Your task to perform on an android device: Open the calendar and show me this week's events Image 0: 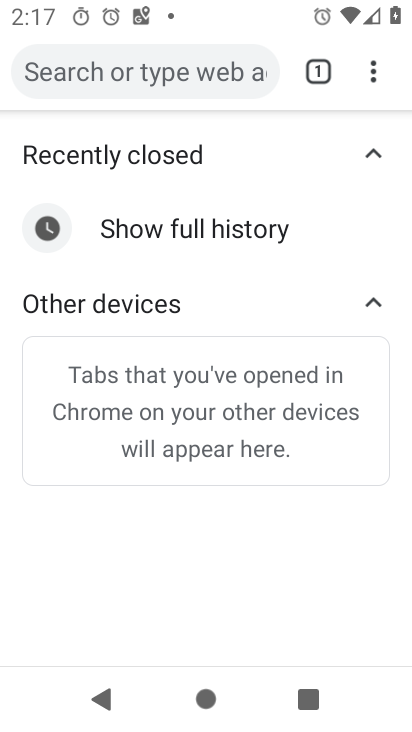
Step 0: press home button
Your task to perform on an android device: Open the calendar and show me this week's events Image 1: 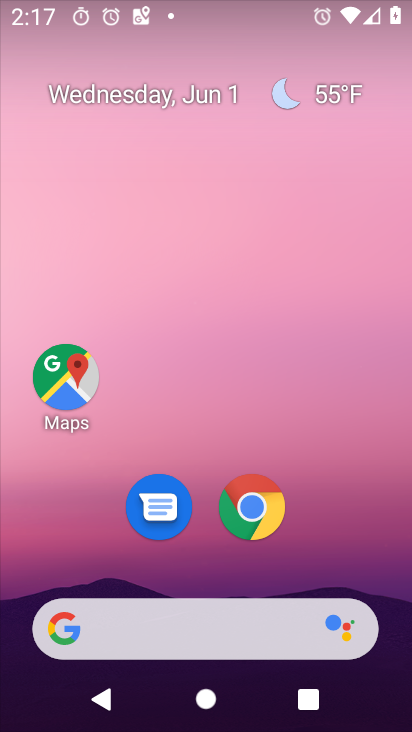
Step 1: drag from (358, 581) to (316, 0)
Your task to perform on an android device: Open the calendar and show me this week's events Image 2: 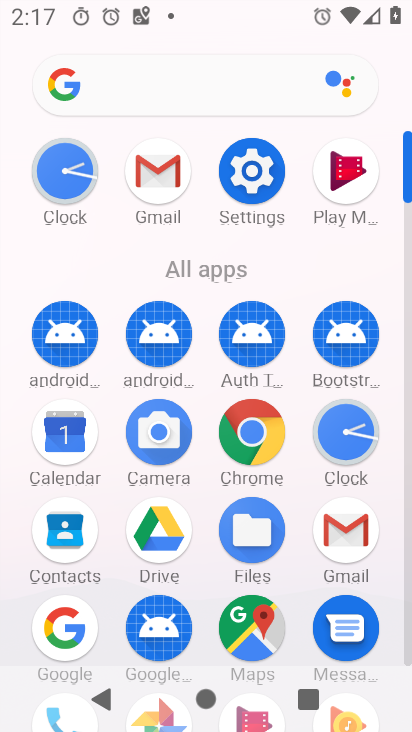
Step 2: click (56, 441)
Your task to perform on an android device: Open the calendar and show me this week's events Image 3: 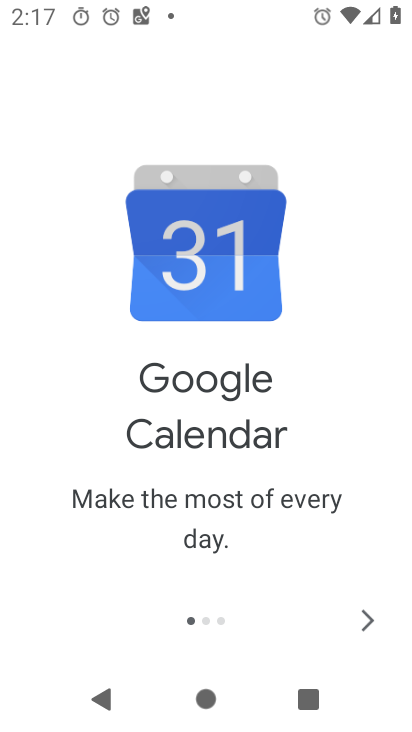
Step 3: click (361, 630)
Your task to perform on an android device: Open the calendar and show me this week's events Image 4: 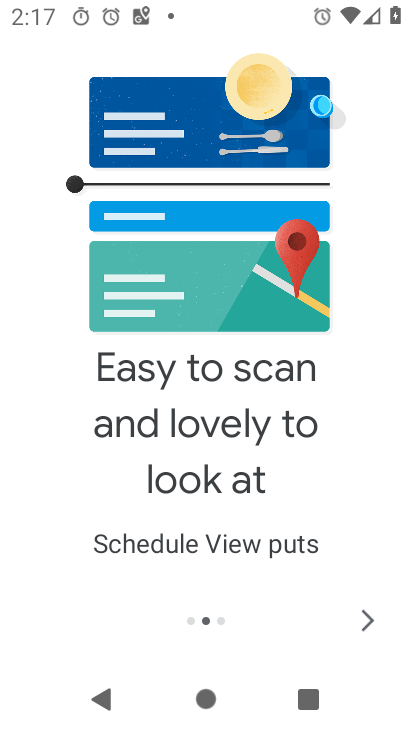
Step 4: click (361, 630)
Your task to perform on an android device: Open the calendar and show me this week's events Image 5: 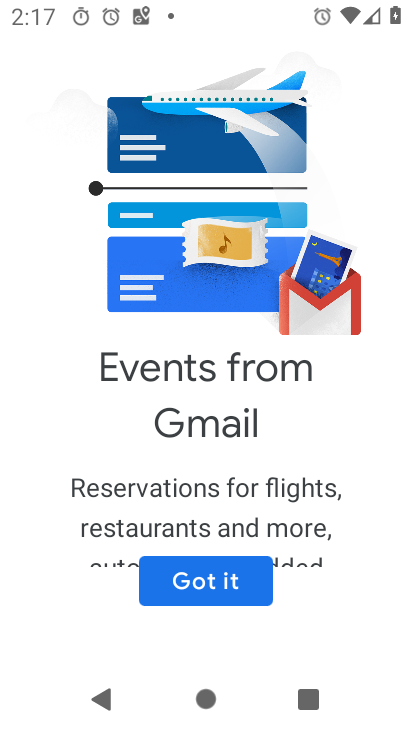
Step 5: click (216, 576)
Your task to perform on an android device: Open the calendar and show me this week's events Image 6: 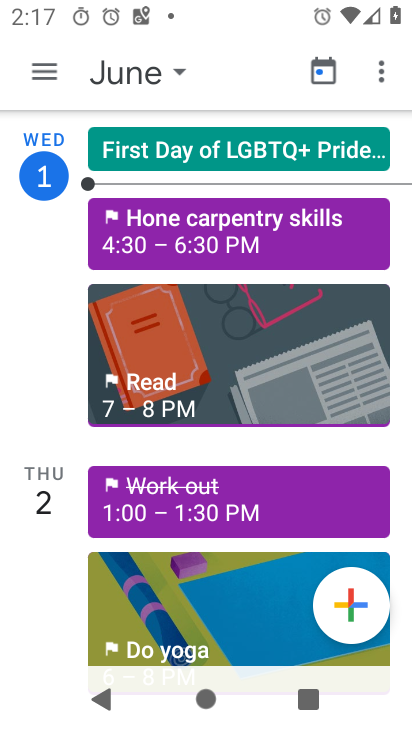
Step 6: click (45, 70)
Your task to perform on an android device: Open the calendar and show me this week's events Image 7: 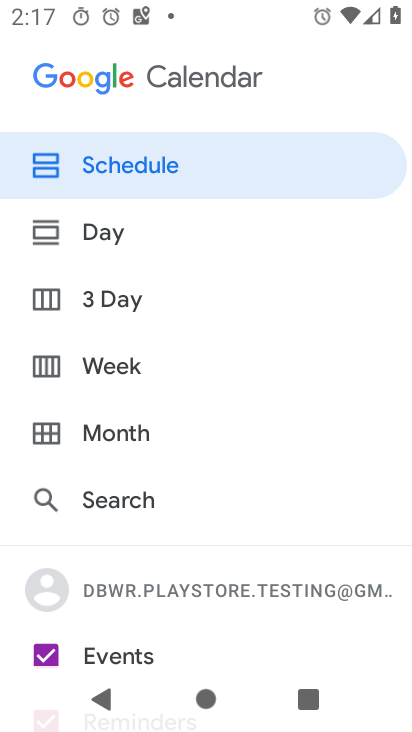
Step 7: drag from (143, 632) to (146, 240)
Your task to perform on an android device: Open the calendar and show me this week's events Image 8: 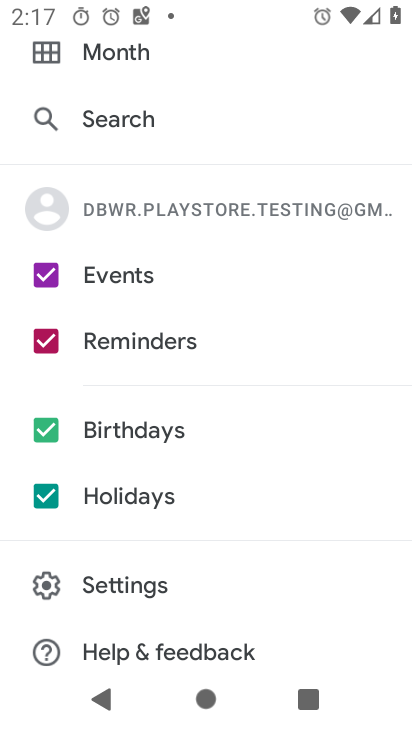
Step 8: click (42, 348)
Your task to perform on an android device: Open the calendar and show me this week's events Image 9: 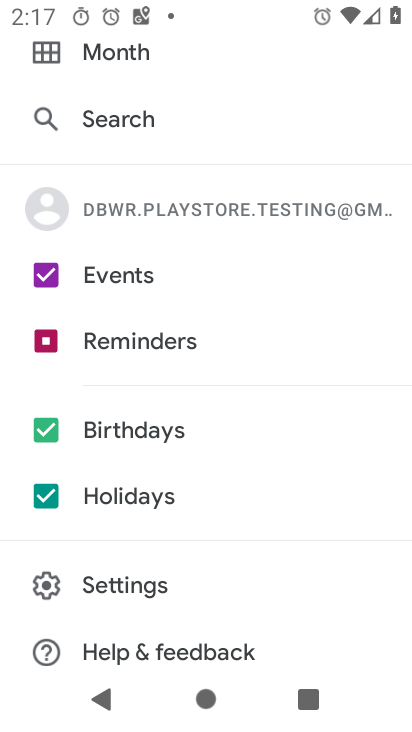
Step 9: click (40, 428)
Your task to perform on an android device: Open the calendar and show me this week's events Image 10: 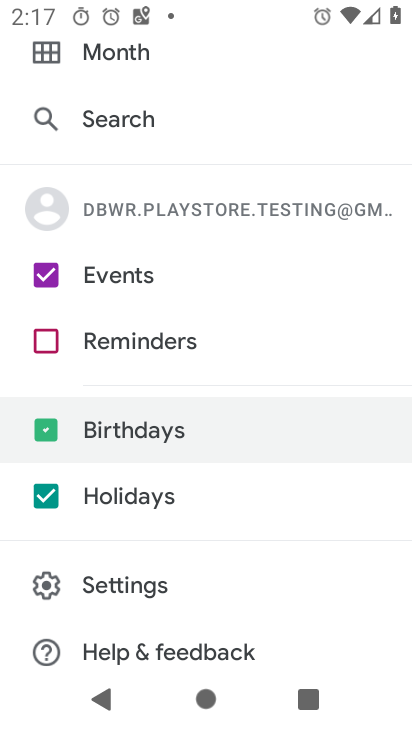
Step 10: click (40, 509)
Your task to perform on an android device: Open the calendar and show me this week's events Image 11: 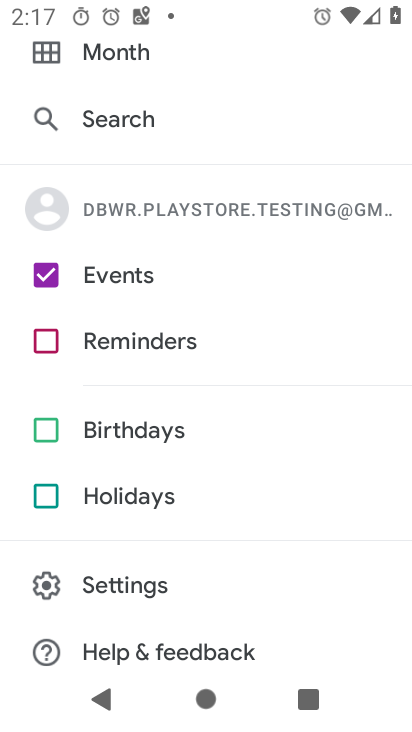
Step 11: drag from (160, 160) to (170, 513)
Your task to perform on an android device: Open the calendar and show me this week's events Image 12: 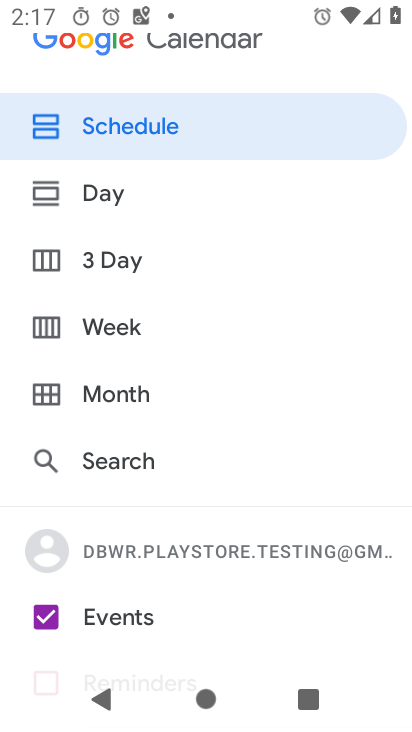
Step 12: click (73, 329)
Your task to perform on an android device: Open the calendar and show me this week's events Image 13: 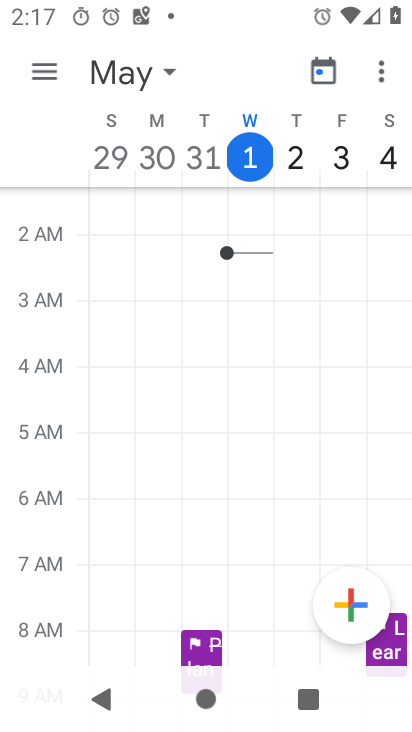
Step 13: task complete